Your task to perform on an android device: turn off wifi Image 0: 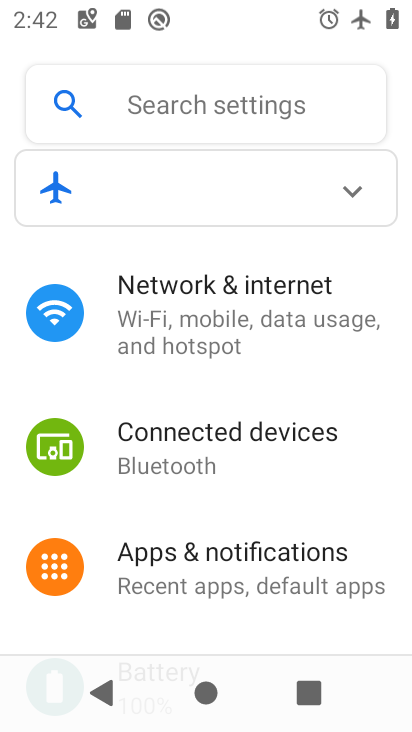
Step 0: click (223, 311)
Your task to perform on an android device: turn off wifi Image 1: 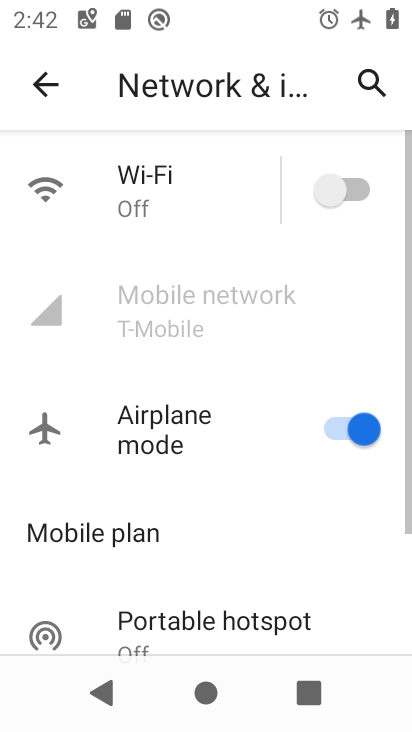
Step 1: click (171, 183)
Your task to perform on an android device: turn off wifi Image 2: 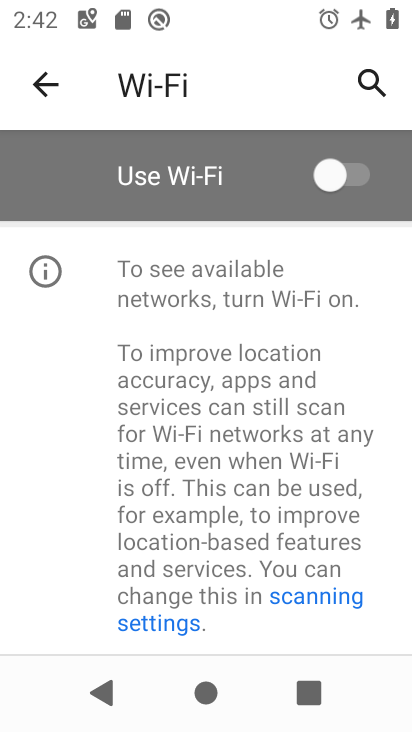
Step 2: task complete